Your task to perform on an android device: Open the map Image 0: 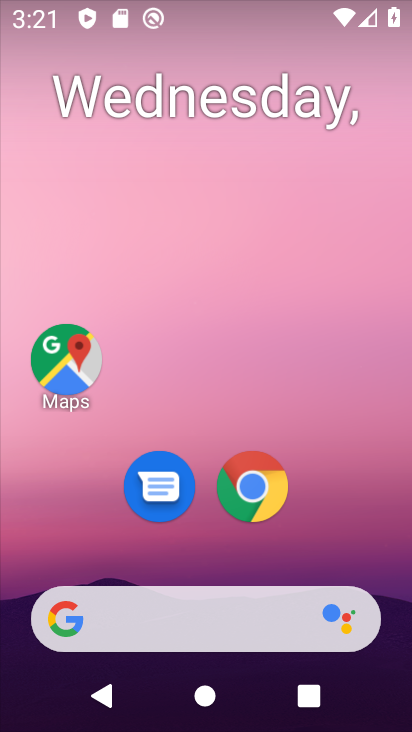
Step 0: drag from (284, 589) to (269, 296)
Your task to perform on an android device: Open the map Image 1: 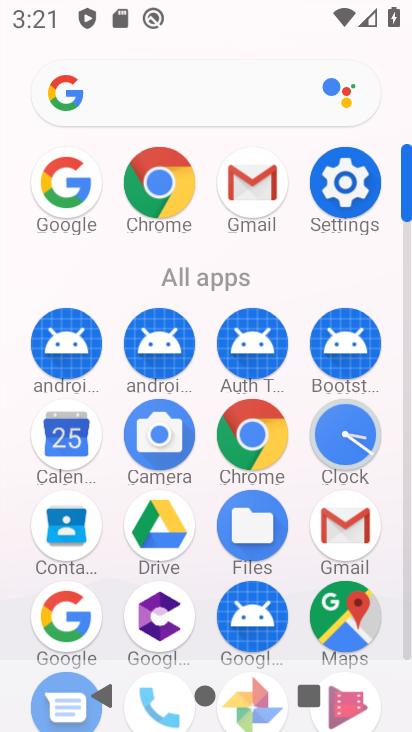
Step 1: click (334, 623)
Your task to perform on an android device: Open the map Image 2: 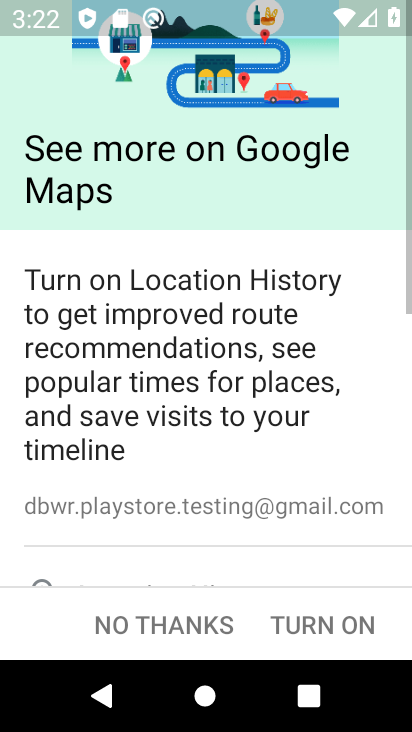
Step 2: task complete